Your task to perform on an android device: Go to Reddit.com Image 0: 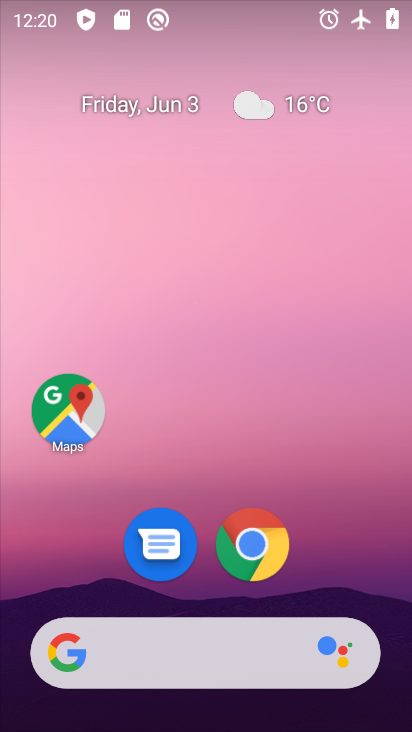
Step 0: drag from (325, 579) to (313, 231)
Your task to perform on an android device: Go to Reddit.com Image 1: 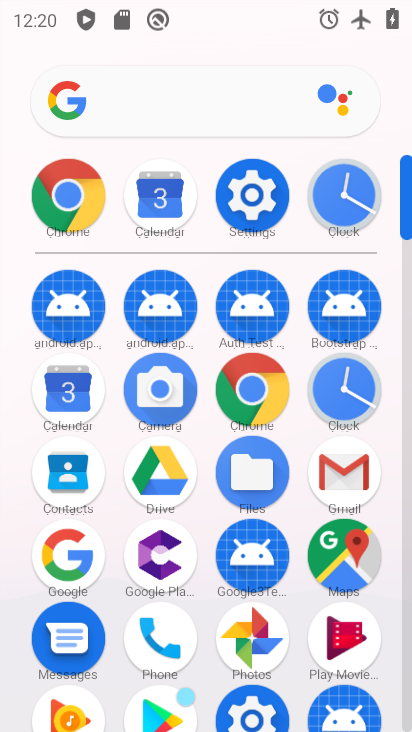
Step 1: click (284, 397)
Your task to perform on an android device: Go to Reddit.com Image 2: 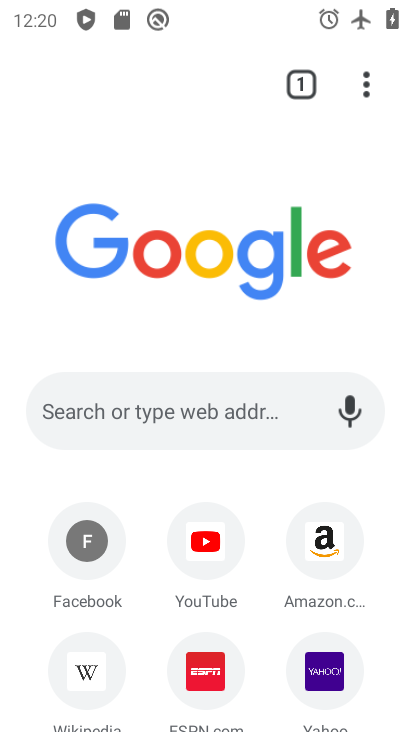
Step 2: click (279, 429)
Your task to perform on an android device: Go to Reddit.com Image 3: 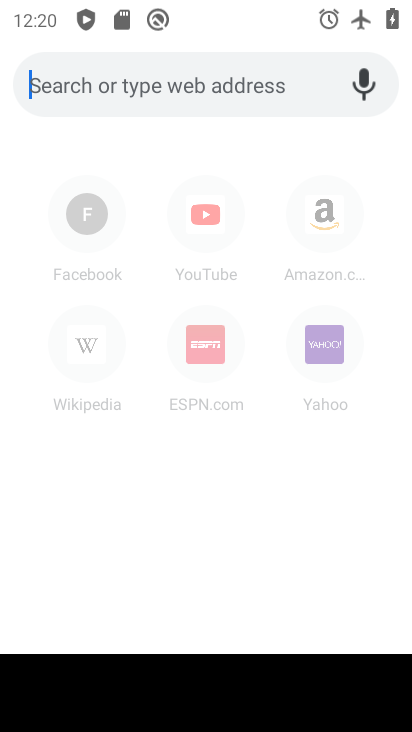
Step 3: click (208, 86)
Your task to perform on an android device: Go to Reddit.com Image 4: 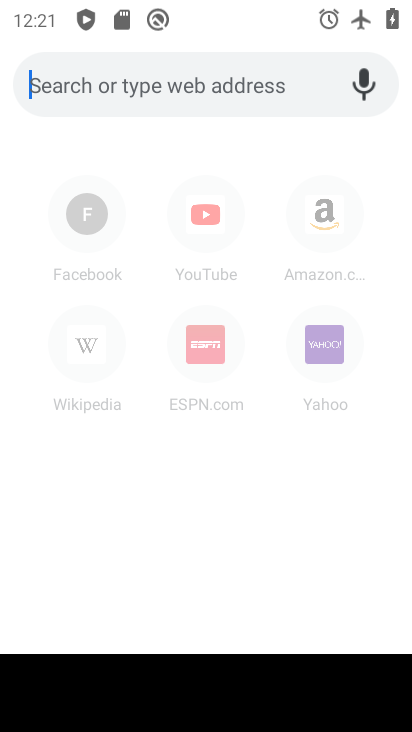
Step 4: type "reddit.com"
Your task to perform on an android device: Go to Reddit.com Image 5: 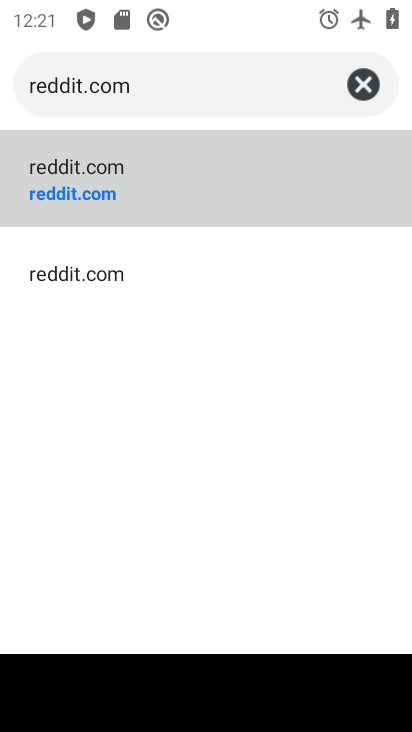
Step 5: click (49, 191)
Your task to perform on an android device: Go to Reddit.com Image 6: 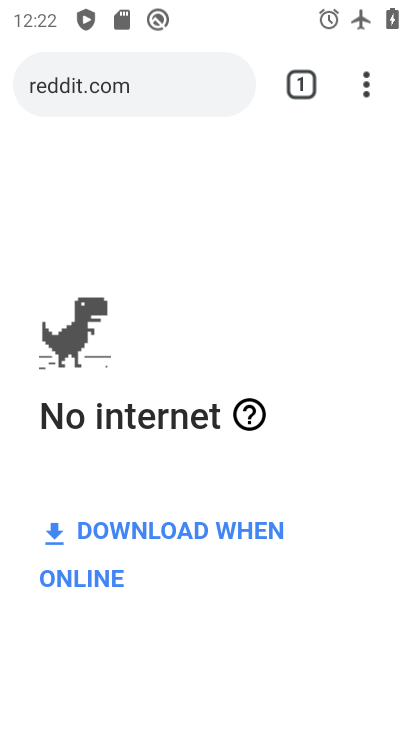
Step 6: task complete